Your task to perform on an android device: Open Google Chrome Image 0: 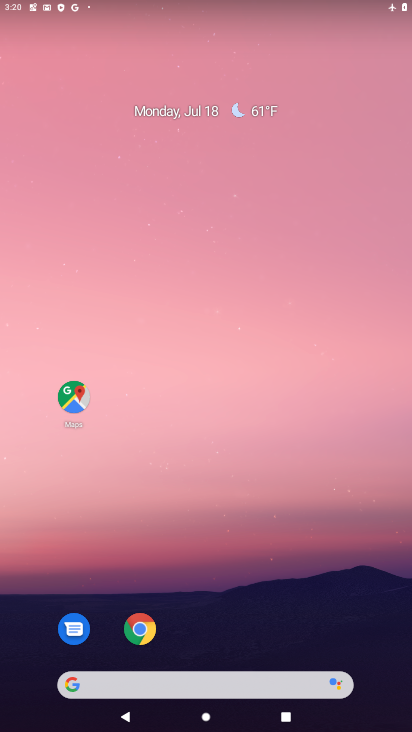
Step 0: click (138, 629)
Your task to perform on an android device: Open Google Chrome Image 1: 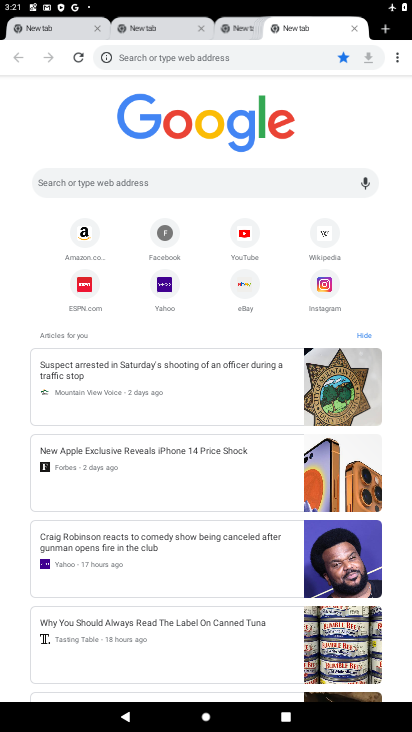
Step 1: click (396, 59)
Your task to perform on an android device: Open Google Chrome Image 2: 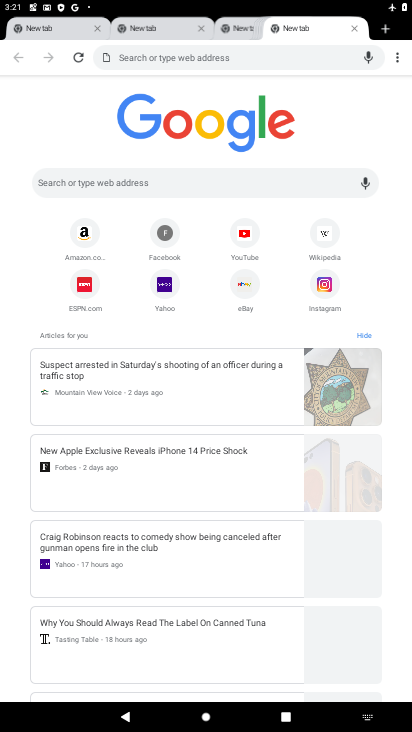
Step 2: click (396, 59)
Your task to perform on an android device: Open Google Chrome Image 3: 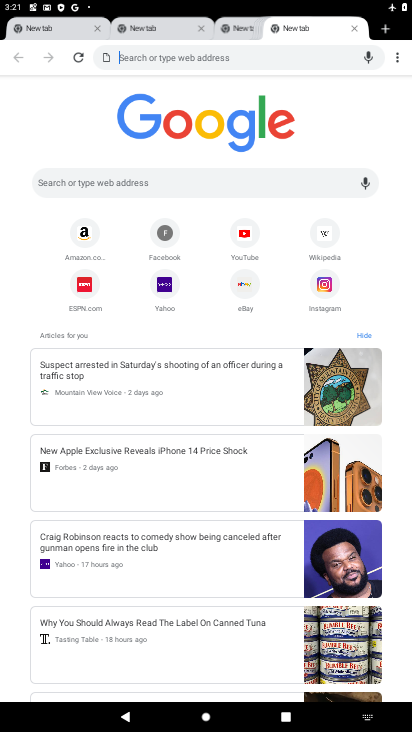
Step 3: click (396, 59)
Your task to perform on an android device: Open Google Chrome Image 4: 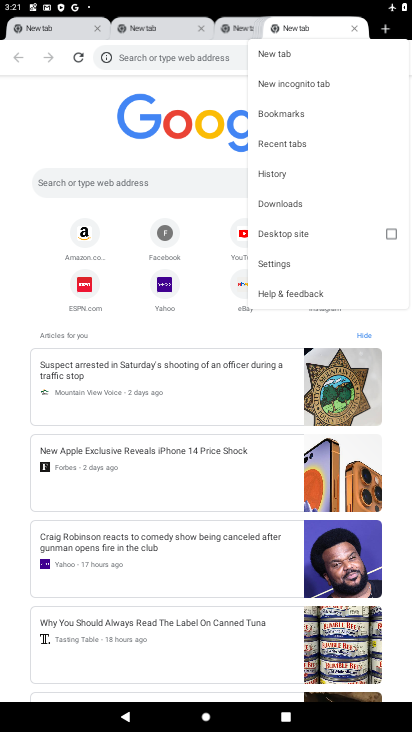
Step 4: click (287, 259)
Your task to perform on an android device: Open Google Chrome Image 5: 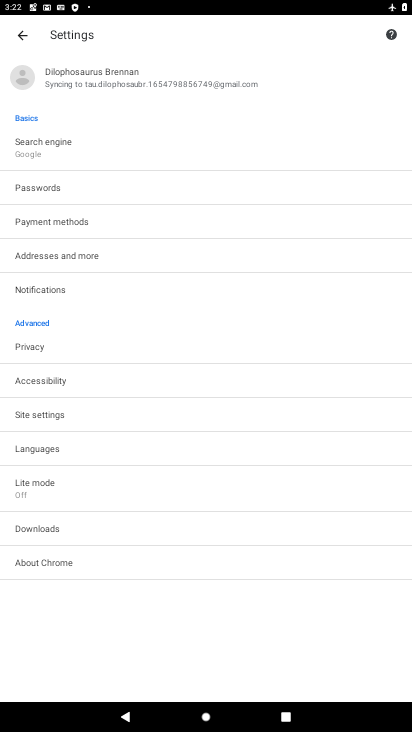
Step 5: task complete